Your task to perform on an android device: Go to settings Image 0: 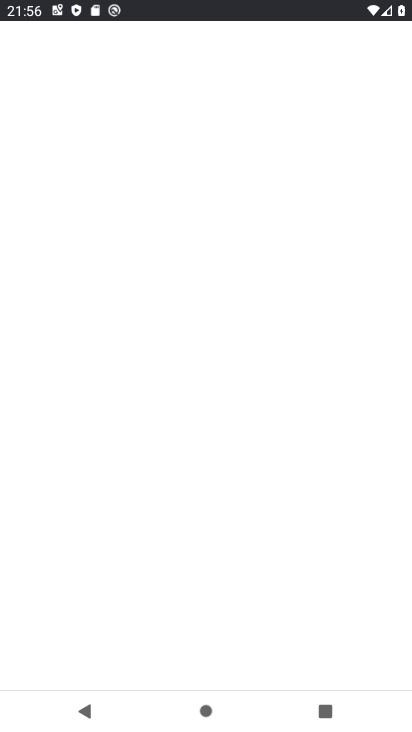
Step 0: press home button
Your task to perform on an android device: Go to settings Image 1: 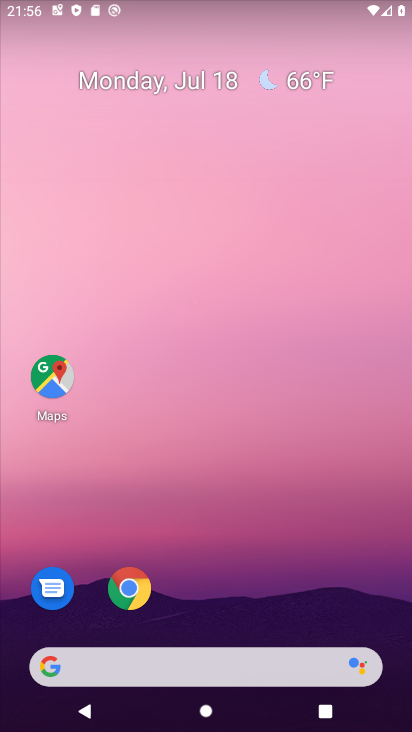
Step 1: drag from (214, 673) to (379, 3)
Your task to perform on an android device: Go to settings Image 2: 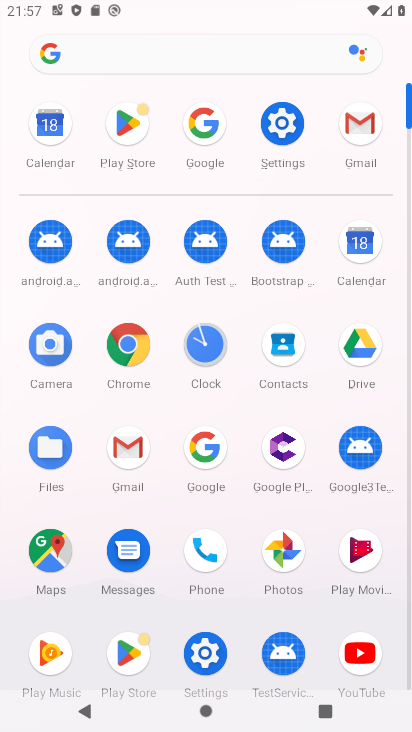
Step 2: click (281, 126)
Your task to perform on an android device: Go to settings Image 3: 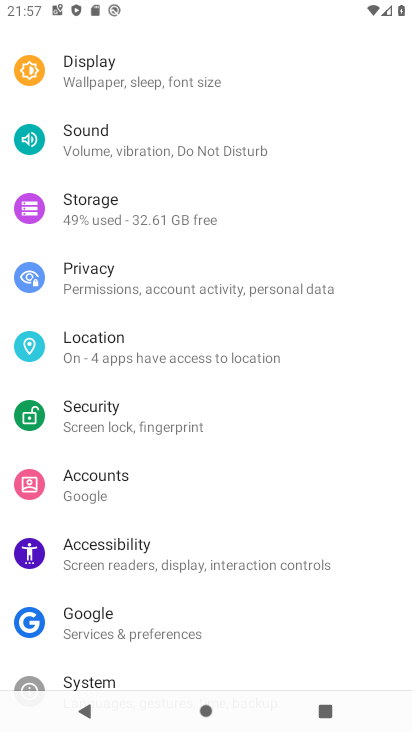
Step 3: task complete